Your task to perform on an android device: turn off wifi Image 0: 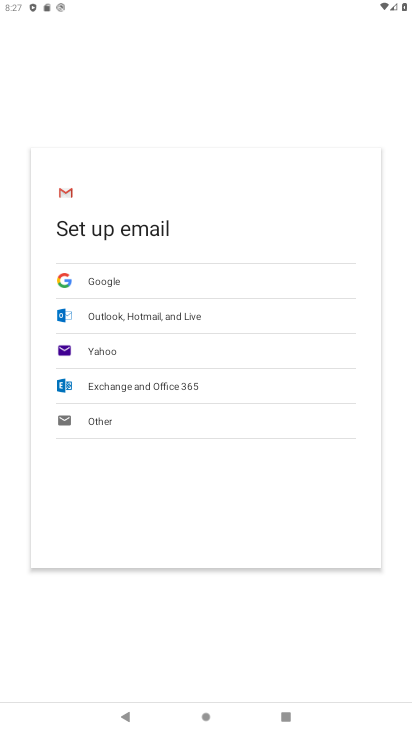
Step 0: press home button
Your task to perform on an android device: turn off wifi Image 1: 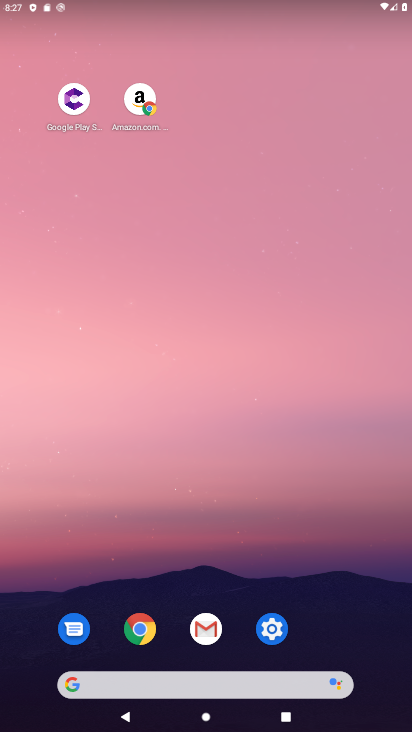
Step 1: click (273, 623)
Your task to perform on an android device: turn off wifi Image 2: 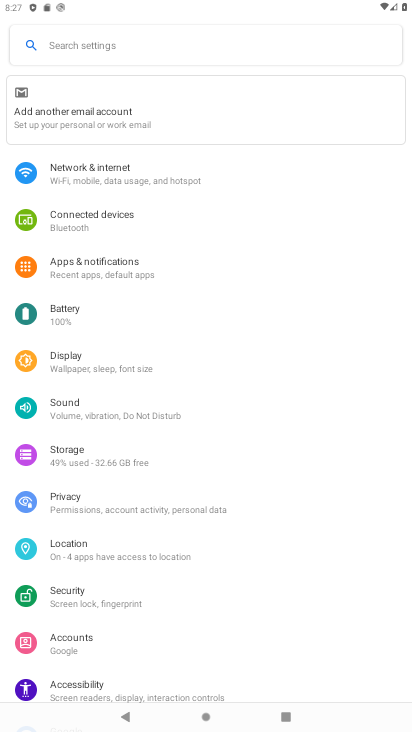
Step 2: click (118, 180)
Your task to perform on an android device: turn off wifi Image 3: 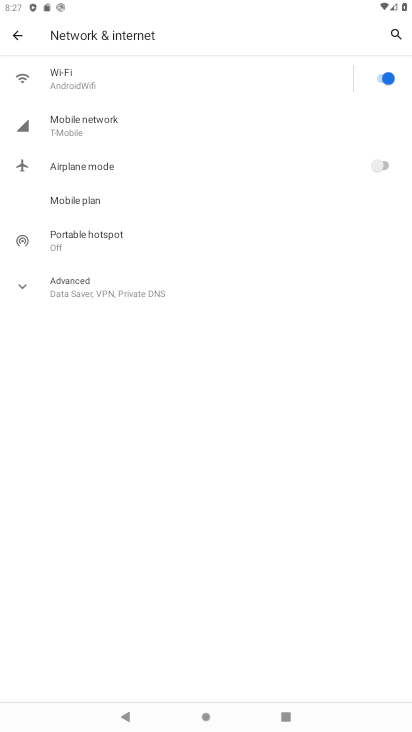
Step 3: click (105, 85)
Your task to perform on an android device: turn off wifi Image 4: 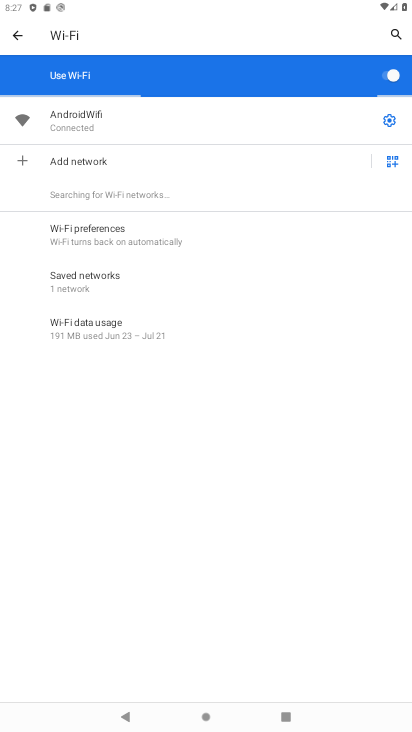
Step 4: click (383, 75)
Your task to perform on an android device: turn off wifi Image 5: 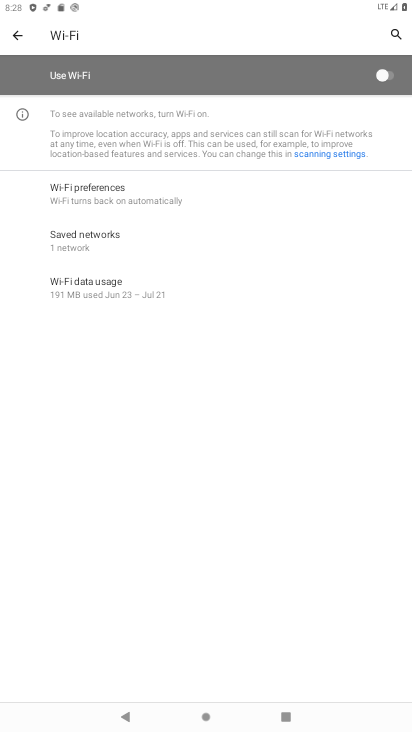
Step 5: task complete